Your task to perform on an android device: turn off notifications settings in the gmail app Image 0: 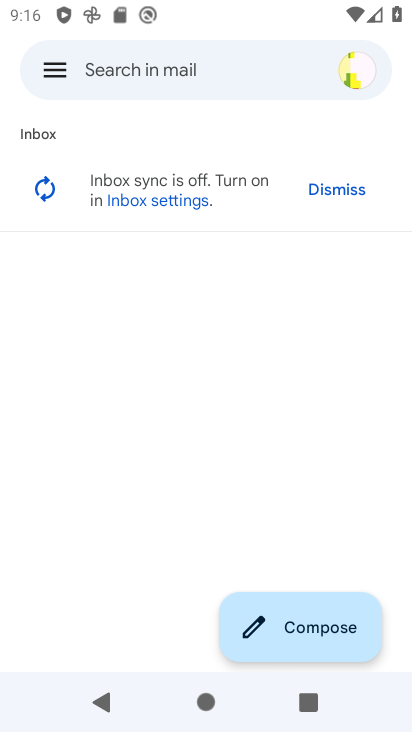
Step 0: press home button
Your task to perform on an android device: turn off notifications settings in the gmail app Image 1: 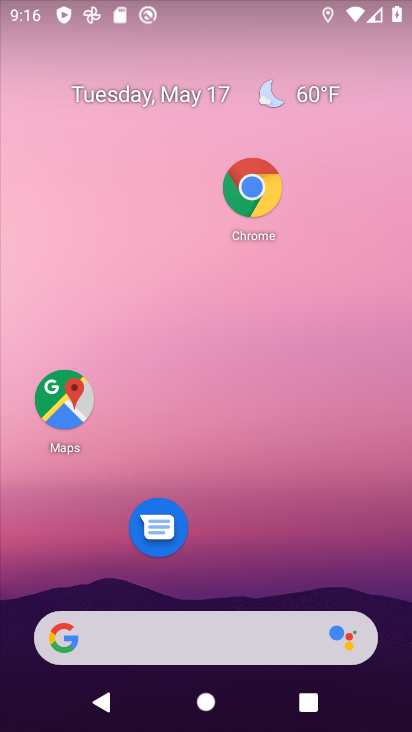
Step 1: drag from (294, 548) to (279, 81)
Your task to perform on an android device: turn off notifications settings in the gmail app Image 2: 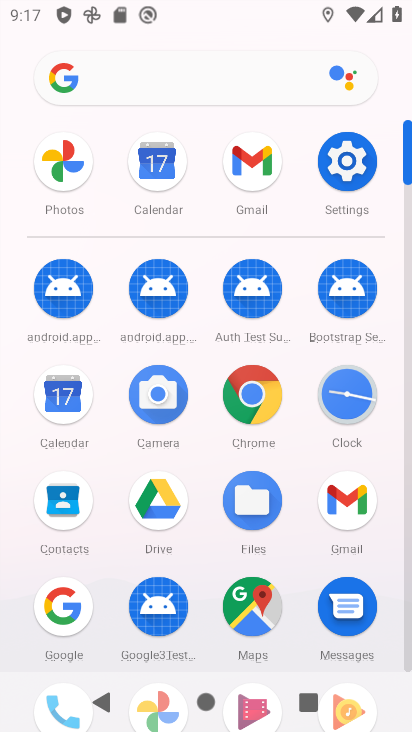
Step 2: click (251, 191)
Your task to perform on an android device: turn off notifications settings in the gmail app Image 3: 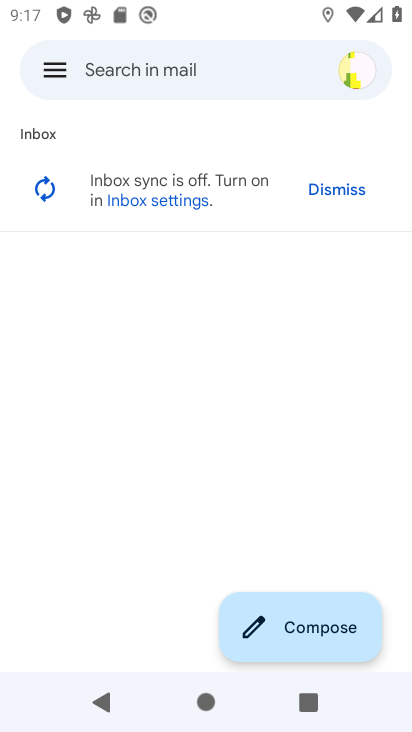
Step 3: click (60, 78)
Your task to perform on an android device: turn off notifications settings in the gmail app Image 4: 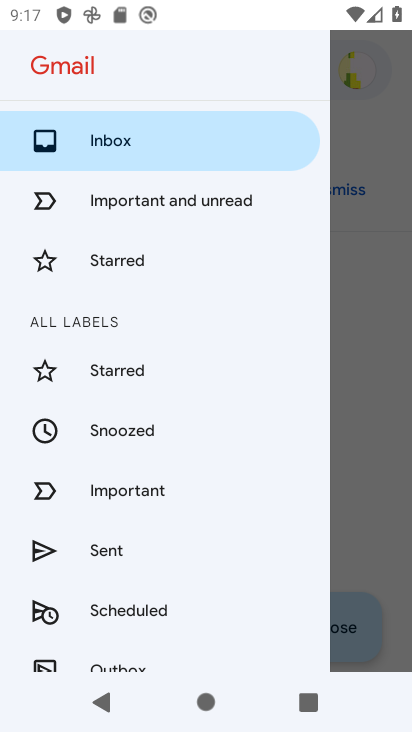
Step 4: drag from (131, 633) to (153, 250)
Your task to perform on an android device: turn off notifications settings in the gmail app Image 5: 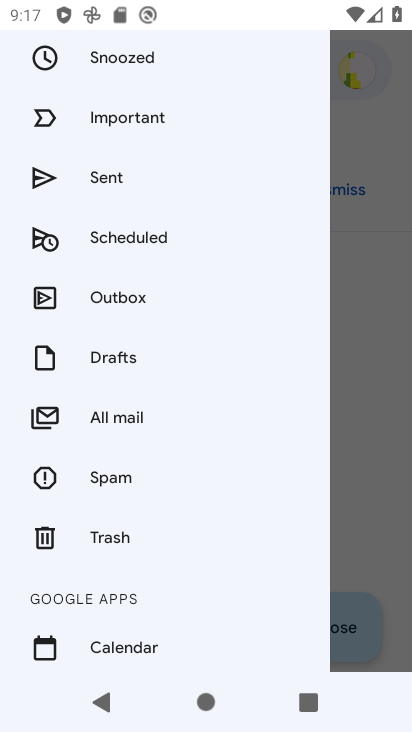
Step 5: drag from (123, 542) to (159, 230)
Your task to perform on an android device: turn off notifications settings in the gmail app Image 6: 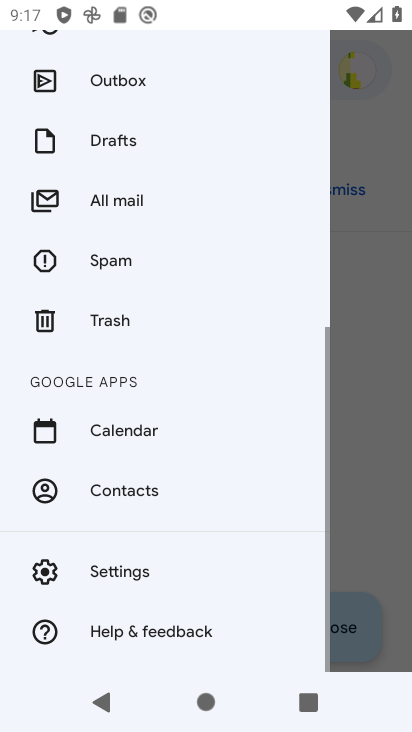
Step 6: click (168, 559)
Your task to perform on an android device: turn off notifications settings in the gmail app Image 7: 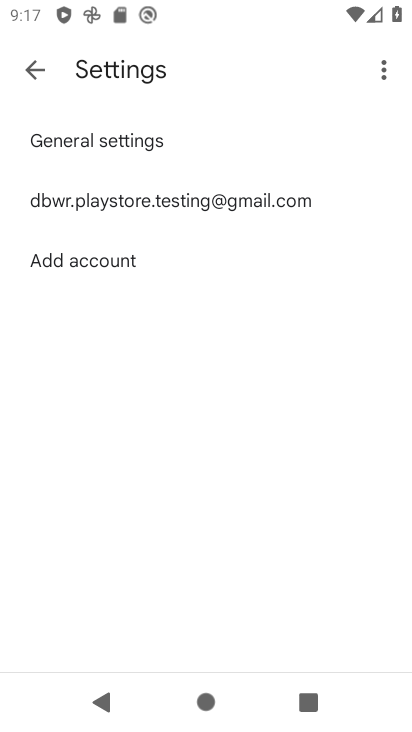
Step 7: click (157, 165)
Your task to perform on an android device: turn off notifications settings in the gmail app Image 8: 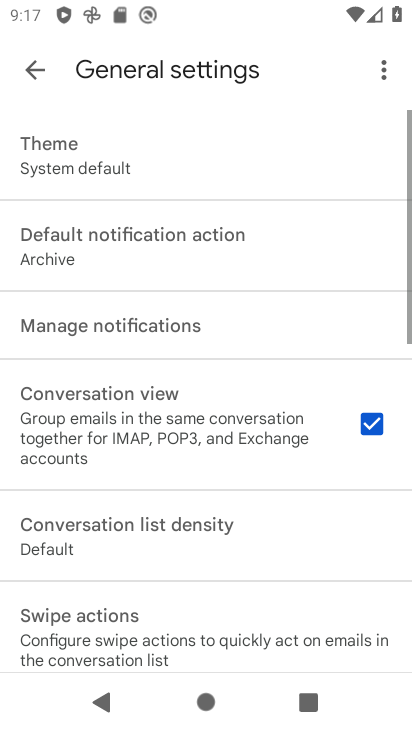
Step 8: click (179, 320)
Your task to perform on an android device: turn off notifications settings in the gmail app Image 9: 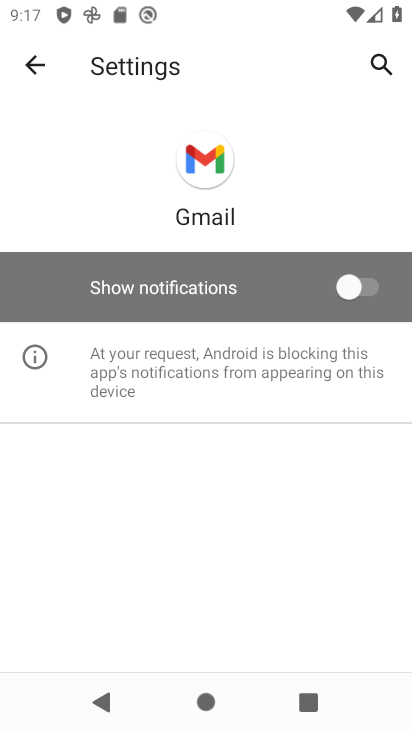
Step 9: click (256, 297)
Your task to perform on an android device: turn off notifications settings in the gmail app Image 10: 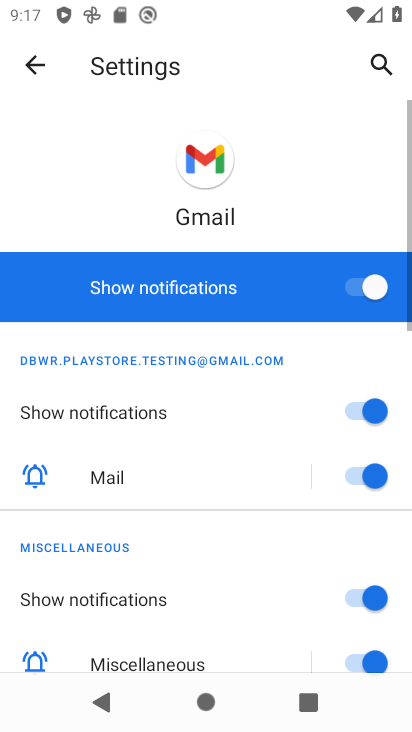
Step 10: task complete